Your task to perform on an android device: install app "Yahoo Mail" Image 0: 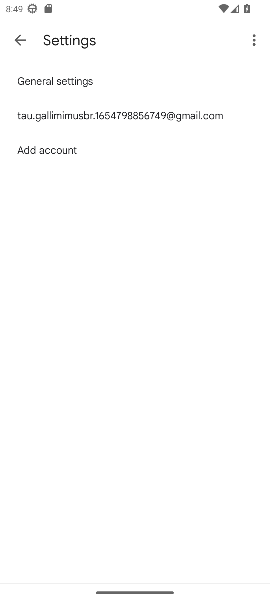
Step 0: press home button
Your task to perform on an android device: install app "Yahoo Mail" Image 1: 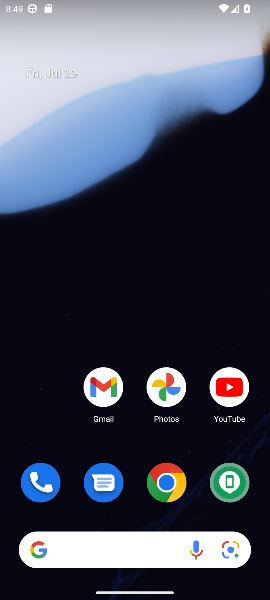
Step 1: drag from (186, 492) to (186, 189)
Your task to perform on an android device: install app "Yahoo Mail" Image 2: 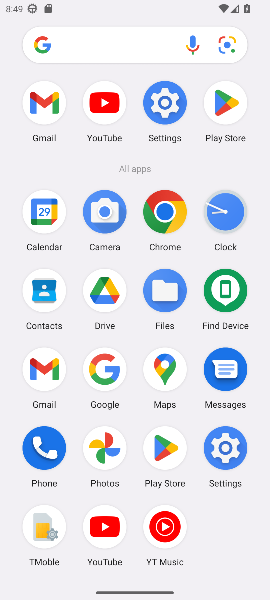
Step 2: click (158, 443)
Your task to perform on an android device: install app "Yahoo Mail" Image 3: 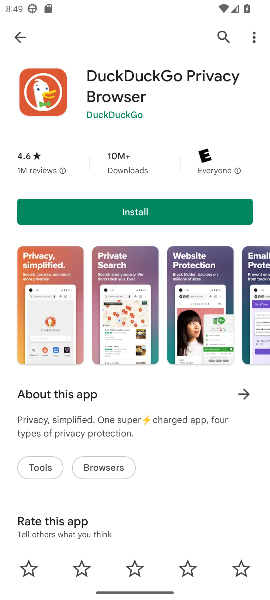
Step 3: click (218, 36)
Your task to perform on an android device: install app "Yahoo Mail" Image 4: 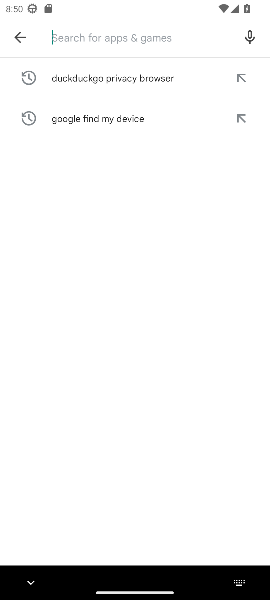
Step 4: type "Yahoo Mail"
Your task to perform on an android device: install app "Yahoo Mail" Image 5: 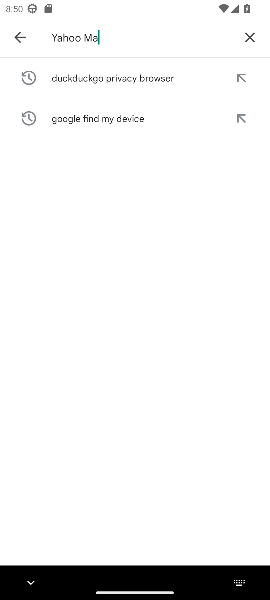
Step 5: type ""
Your task to perform on an android device: install app "Yahoo Mail" Image 6: 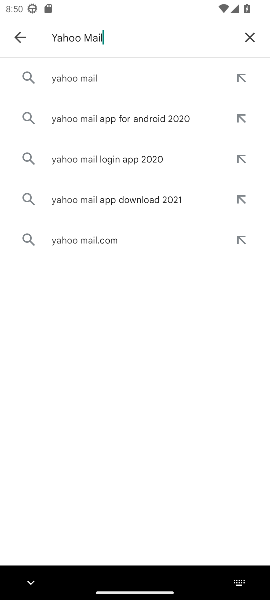
Step 6: click (85, 79)
Your task to perform on an android device: install app "Yahoo Mail" Image 7: 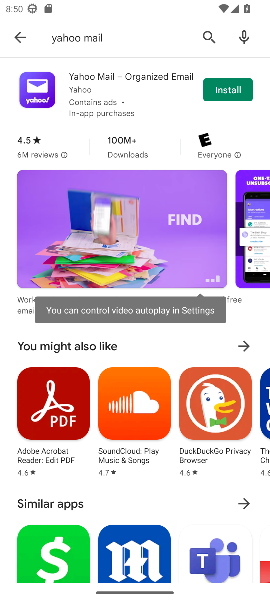
Step 7: click (234, 91)
Your task to perform on an android device: install app "Yahoo Mail" Image 8: 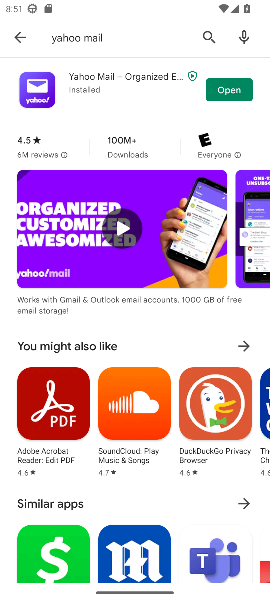
Step 8: task complete